Your task to perform on an android device: change timer sound Image 0: 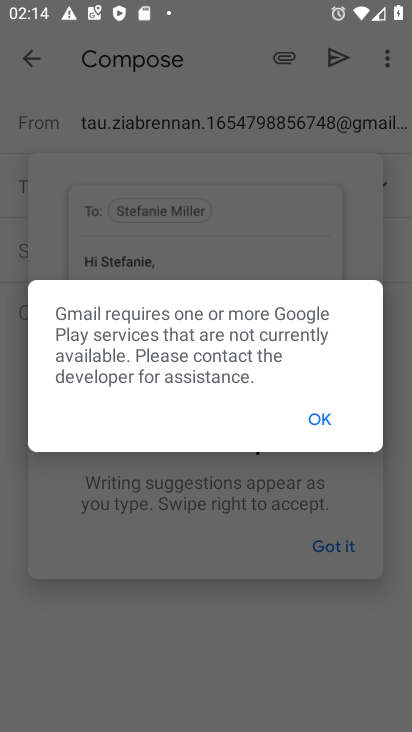
Step 0: press home button
Your task to perform on an android device: change timer sound Image 1: 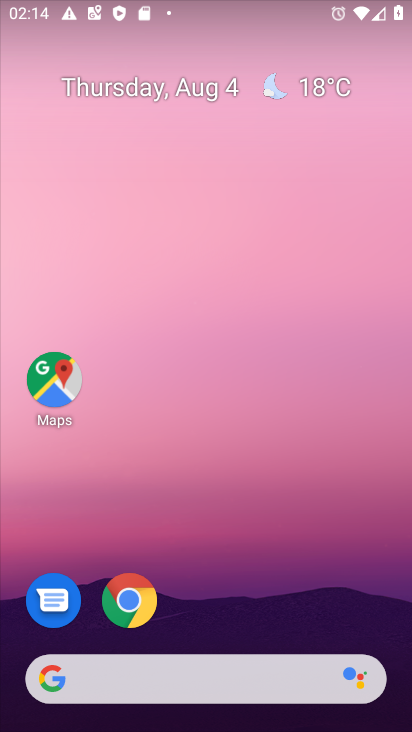
Step 1: drag from (185, 675) to (293, 280)
Your task to perform on an android device: change timer sound Image 2: 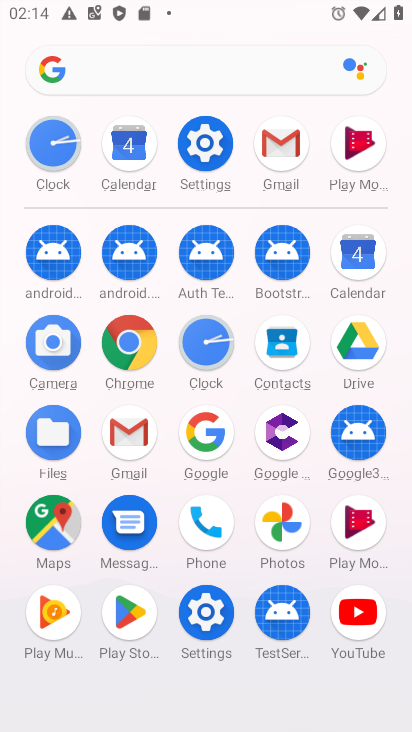
Step 2: click (56, 154)
Your task to perform on an android device: change timer sound Image 3: 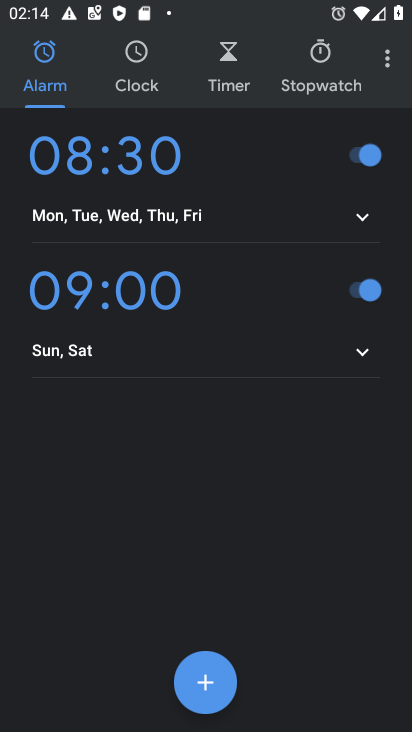
Step 3: click (388, 62)
Your task to perform on an android device: change timer sound Image 4: 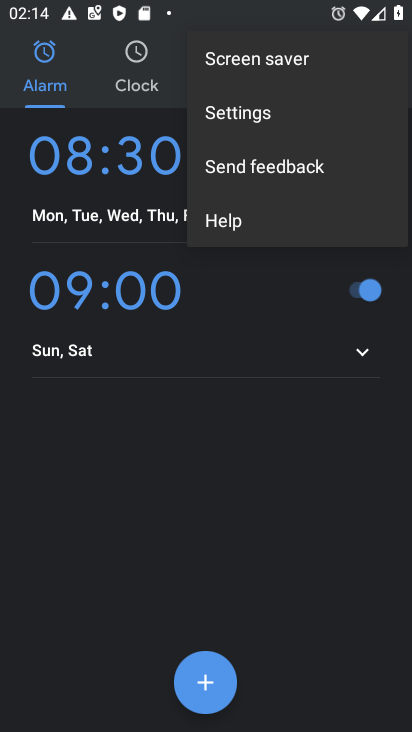
Step 4: click (260, 112)
Your task to perform on an android device: change timer sound Image 5: 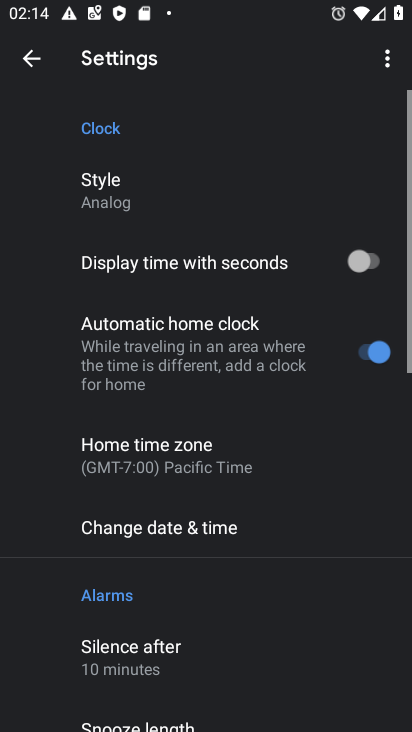
Step 5: drag from (272, 619) to (384, 112)
Your task to perform on an android device: change timer sound Image 6: 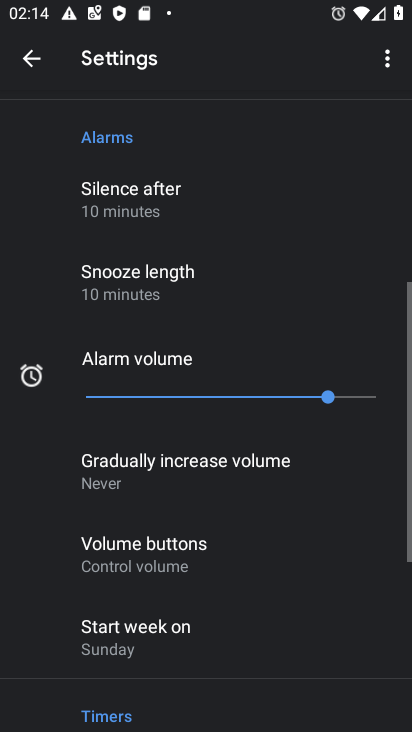
Step 6: drag from (275, 549) to (366, 158)
Your task to perform on an android device: change timer sound Image 7: 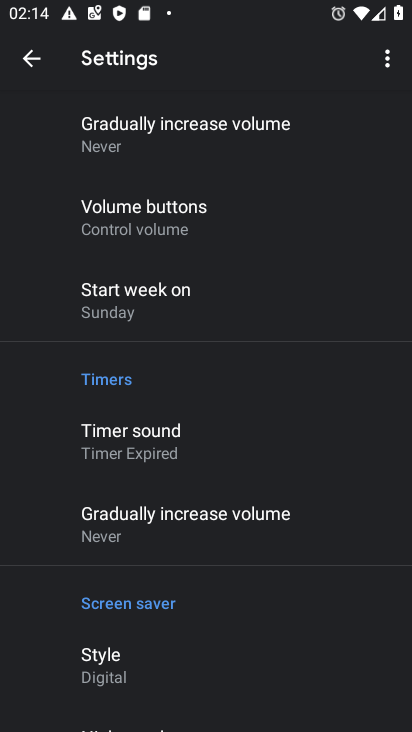
Step 7: click (169, 447)
Your task to perform on an android device: change timer sound Image 8: 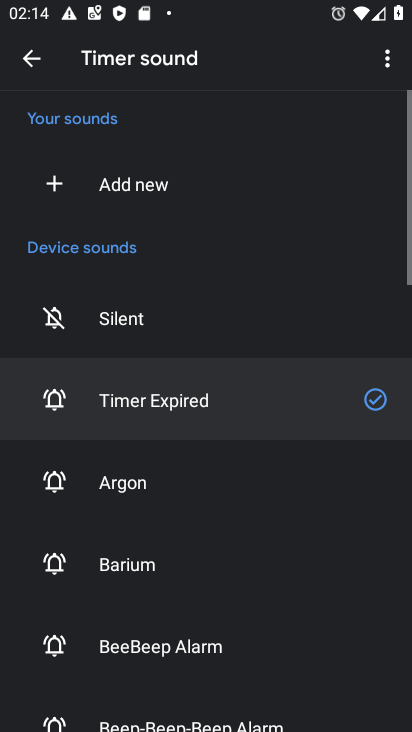
Step 8: click (131, 564)
Your task to perform on an android device: change timer sound Image 9: 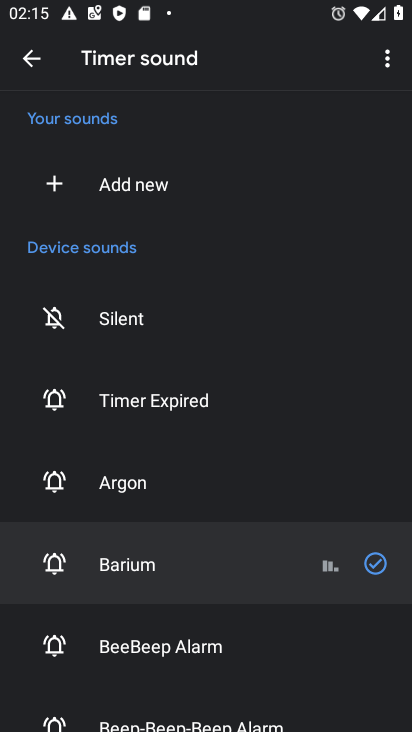
Step 9: task complete